Your task to perform on an android device: toggle location history Image 0: 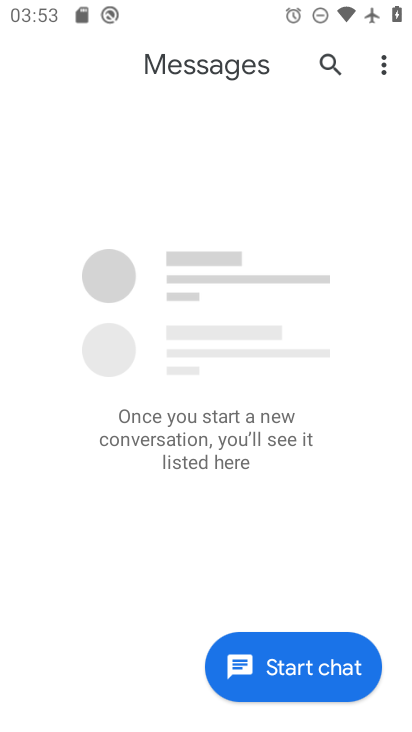
Step 0: press home button
Your task to perform on an android device: toggle location history Image 1: 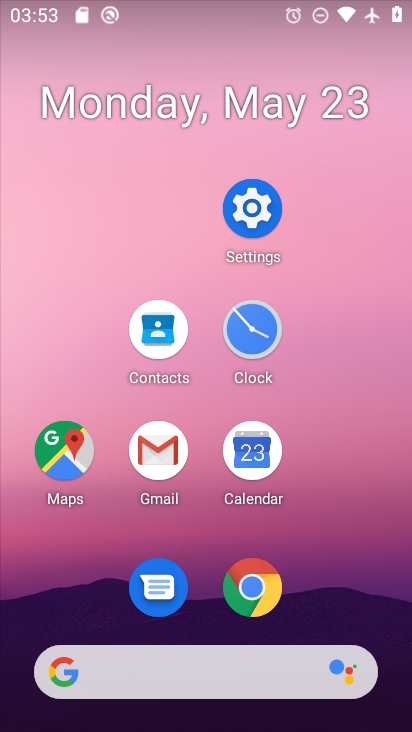
Step 1: task complete